Your task to perform on an android device: View the shopping cart on ebay. Add apple airpods to the cart on ebay Image 0: 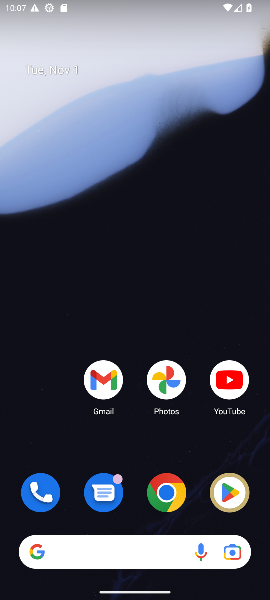
Step 0: click (183, 507)
Your task to perform on an android device: View the shopping cart on ebay. Add apple airpods to the cart on ebay Image 1: 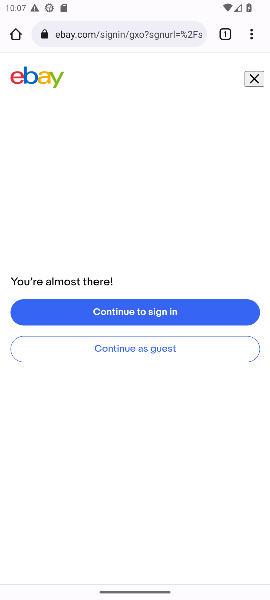
Step 1: click (127, 34)
Your task to perform on an android device: View the shopping cart on ebay. Add apple airpods to the cart on ebay Image 2: 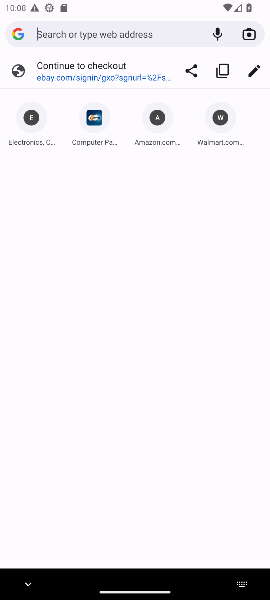
Step 2: type "ebay"
Your task to perform on an android device: View the shopping cart on ebay. Add apple airpods to the cart on ebay Image 3: 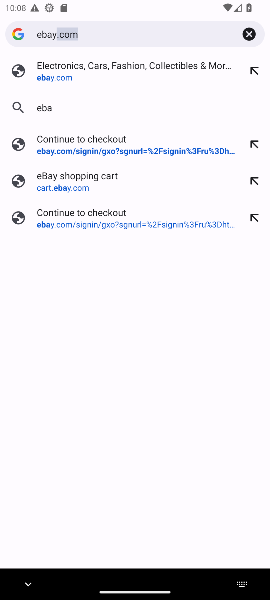
Step 3: type ""
Your task to perform on an android device: View the shopping cart on ebay. Add apple airpods to the cart on ebay Image 4: 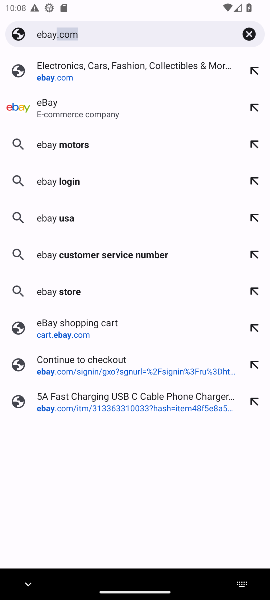
Step 4: click (35, 110)
Your task to perform on an android device: View the shopping cart on ebay. Add apple airpods to the cart on ebay Image 5: 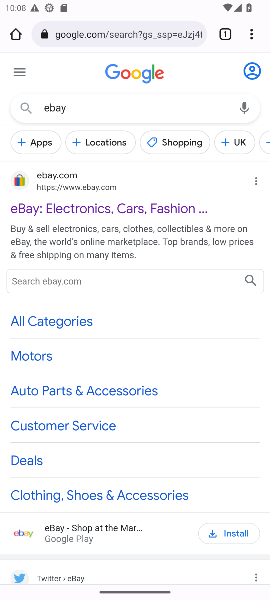
Step 5: click (65, 204)
Your task to perform on an android device: View the shopping cart on ebay. Add apple airpods to the cart on ebay Image 6: 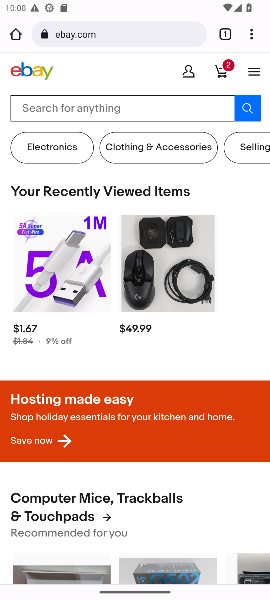
Step 6: click (66, 108)
Your task to perform on an android device: View the shopping cart on ebay. Add apple airpods to the cart on ebay Image 7: 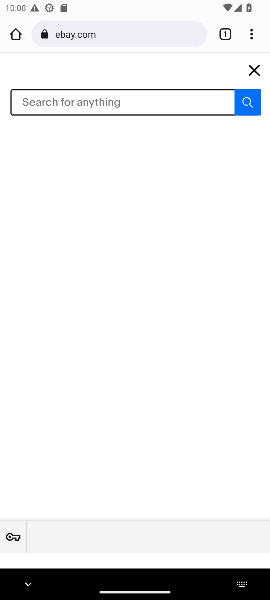
Step 7: type "apple airpods"
Your task to perform on an android device: View the shopping cart on ebay. Add apple airpods to the cart on ebay Image 8: 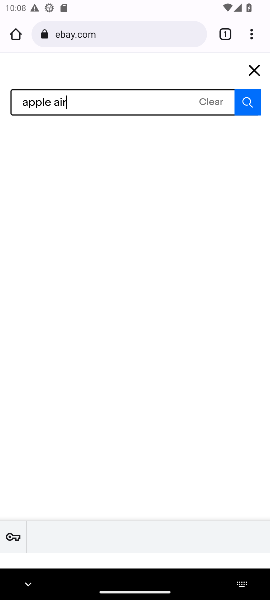
Step 8: type ""
Your task to perform on an android device: View the shopping cart on ebay. Add apple airpods to the cart on ebay Image 9: 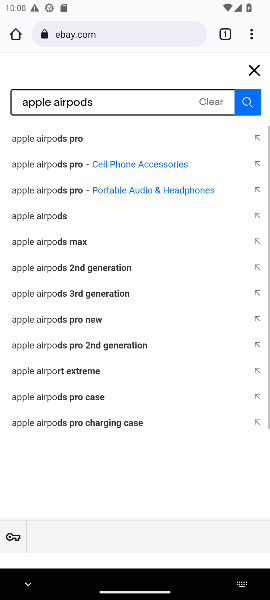
Step 9: click (34, 217)
Your task to perform on an android device: View the shopping cart on ebay. Add apple airpods to the cart on ebay Image 10: 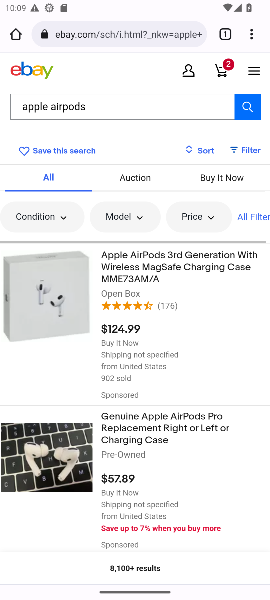
Step 10: click (65, 310)
Your task to perform on an android device: View the shopping cart on ebay. Add apple airpods to the cart on ebay Image 11: 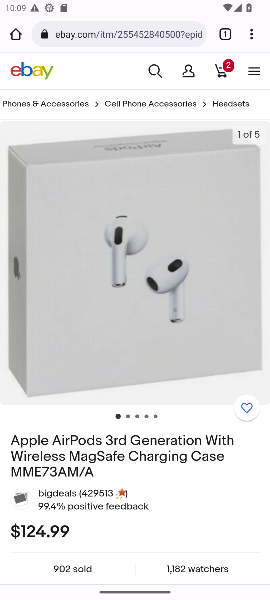
Step 11: drag from (126, 479) to (170, 235)
Your task to perform on an android device: View the shopping cart on ebay. Add apple airpods to the cart on ebay Image 12: 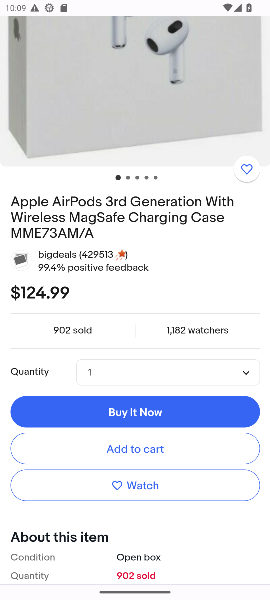
Step 12: click (115, 448)
Your task to perform on an android device: View the shopping cart on ebay. Add apple airpods to the cart on ebay Image 13: 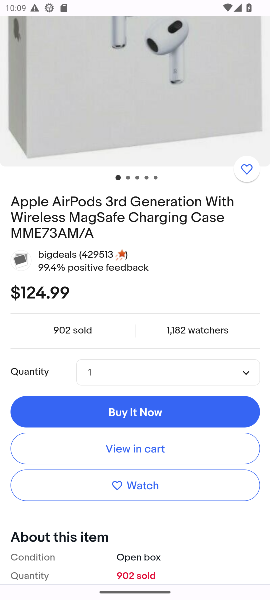
Step 13: click (154, 450)
Your task to perform on an android device: View the shopping cart on ebay. Add apple airpods to the cart on ebay Image 14: 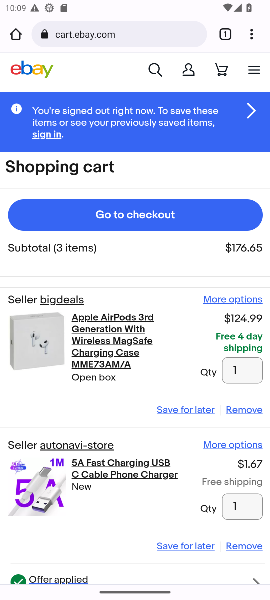
Step 14: click (136, 215)
Your task to perform on an android device: View the shopping cart on ebay. Add apple airpods to the cart on ebay Image 15: 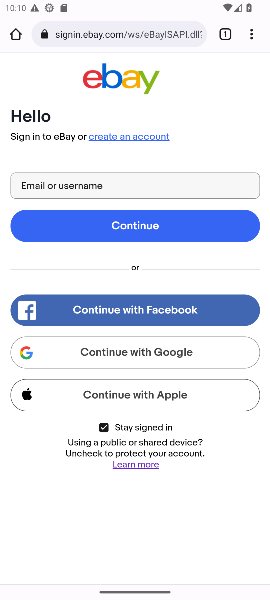
Step 15: task complete